Your task to perform on an android device: Search for seafood restaurants on Google Maps Image 0: 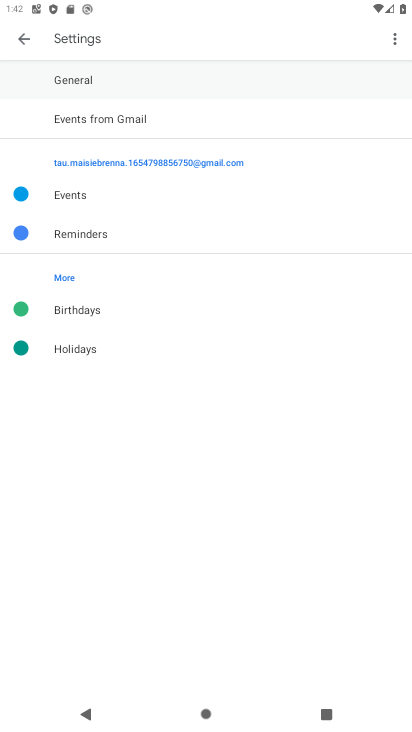
Step 0: press home button
Your task to perform on an android device: Search for seafood restaurants on Google Maps Image 1: 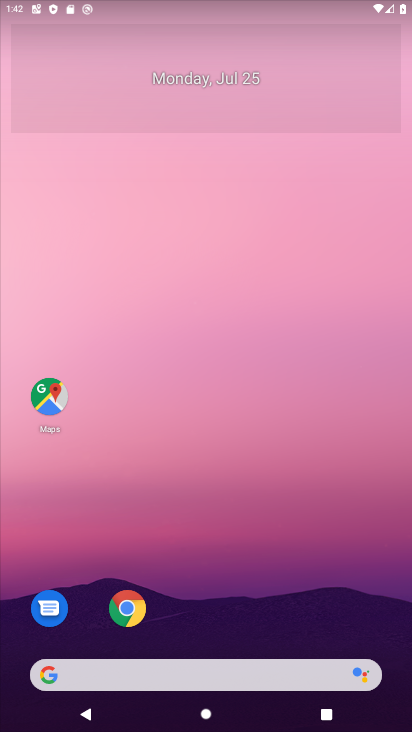
Step 1: click (96, 685)
Your task to perform on an android device: Search for seafood restaurants on Google Maps Image 2: 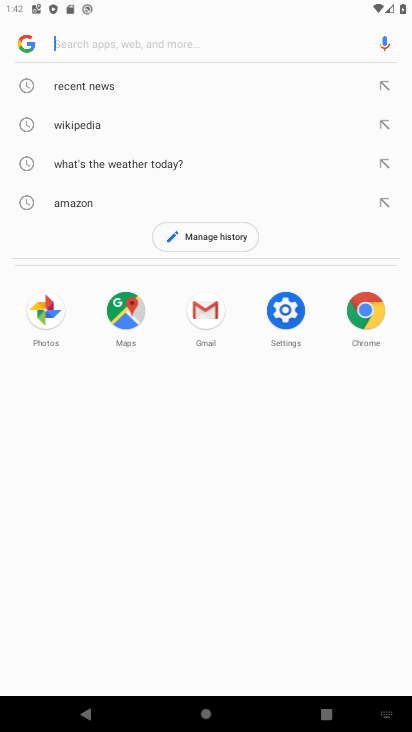
Step 2: press home button
Your task to perform on an android device: Search for seafood restaurants on Google Maps Image 3: 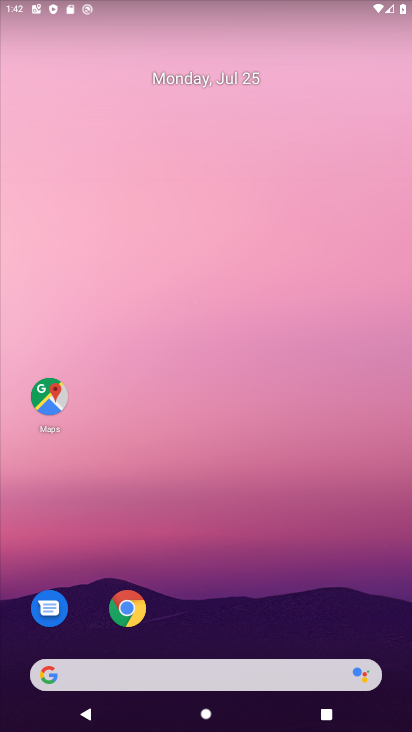
Step 3: click (47, 392)
Your task to perform on an android device: Search for seafood restaurants on Google Maps Image 4: 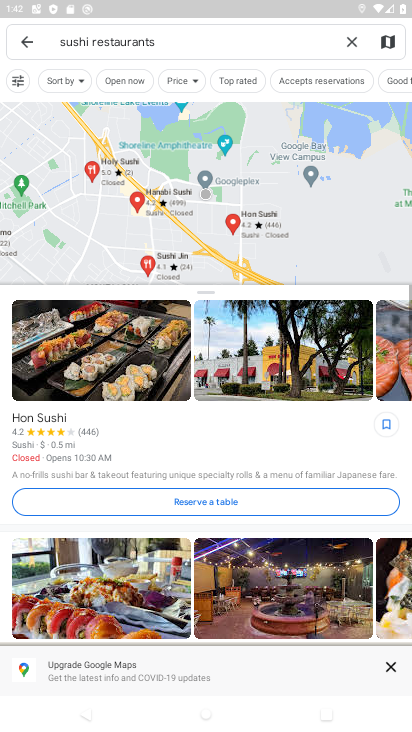
Step 4: click (352, 45)
Your task to perform on an android device: Search for seafood restaurants on Google Maps Image 5: 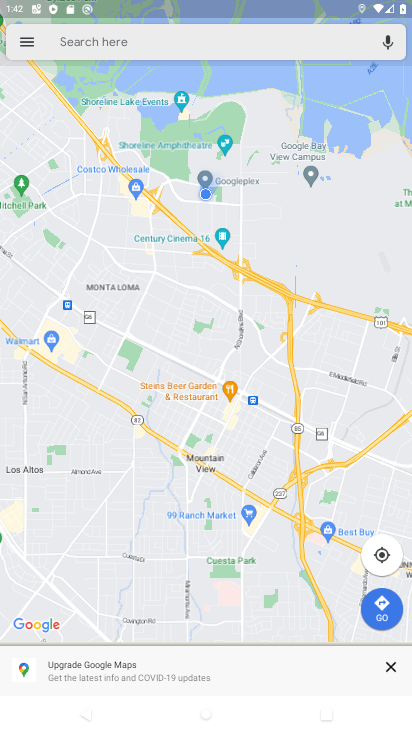
Step 5: type "seafood restaurants "
Your task to perform on an android device: Search for seafood restaurants on Google Maps Image 6: 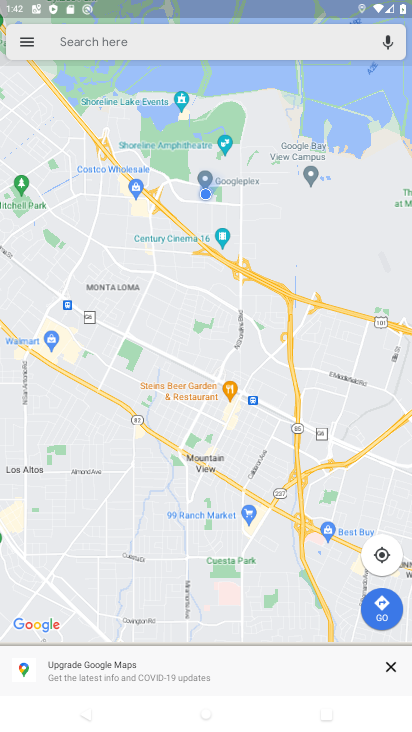
Step 6: press enter
Your task to perform on an android device: Search for seafood restaurants on Google Maps Image 7: 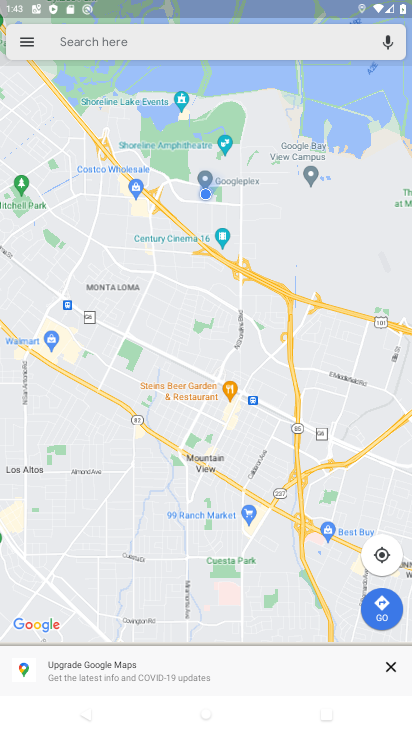
Step 7: click (261, 36)
Your task to perform on an android device: Search for seafood restaurants on Google Maps Image 8: 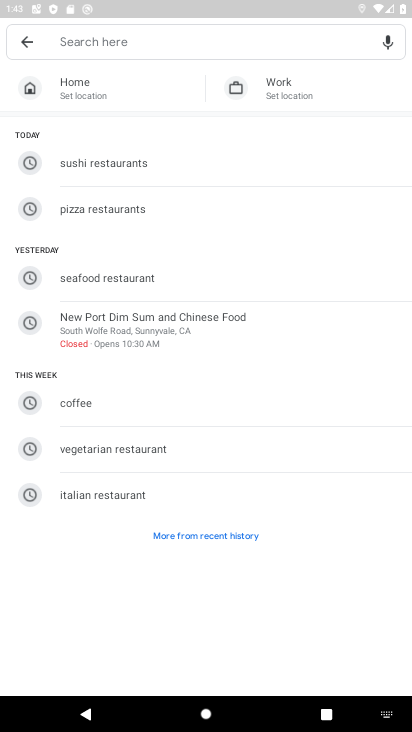
Step 8: type "seafood restaurants "
Your task to perform on an android device: Search for seafood restaurants on Google Maps Image 9: 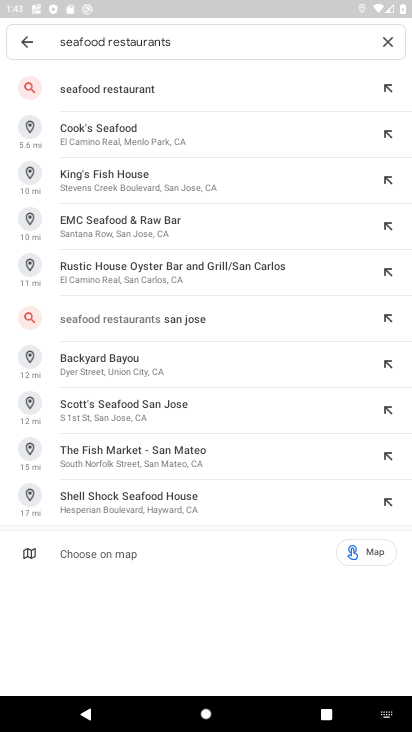
Step 9: task complete